Your task to perform on an android device: set the stopwatch Image 0: 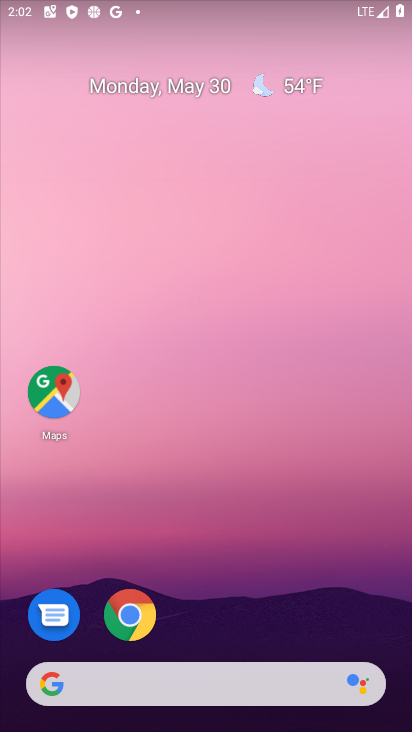
Step 0: drag from (311, 590) to (281, 169)
Your task to perform on an android device: set the stopwatch Image 1: 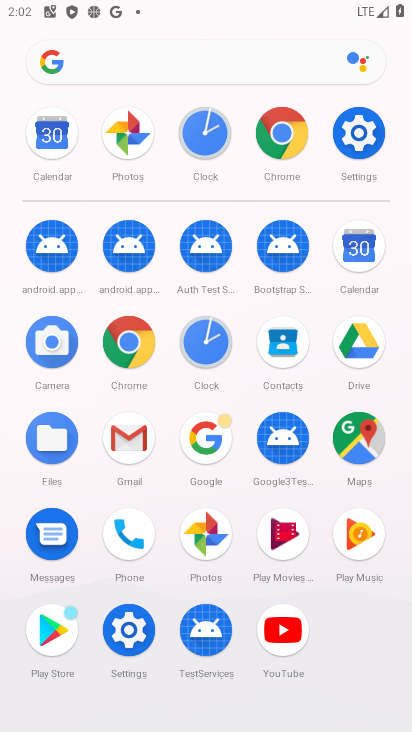
Step 1: click (210, 330)
Your task to perform on an android device: set the stopwatch Image 2: 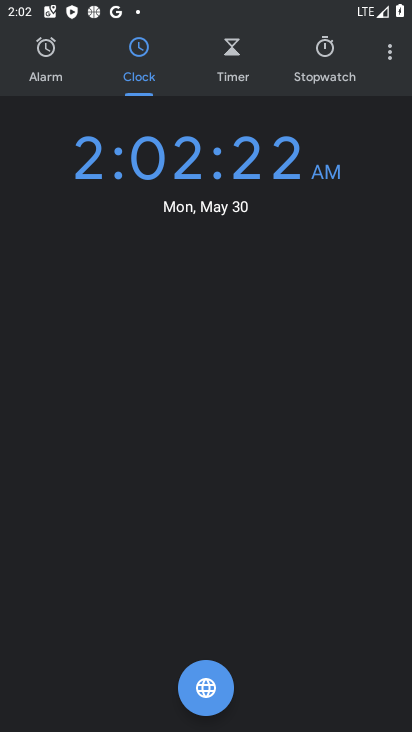
Step 2: click (329, 62)
Your task to perform on an android device: set the stopwatch Image 3: 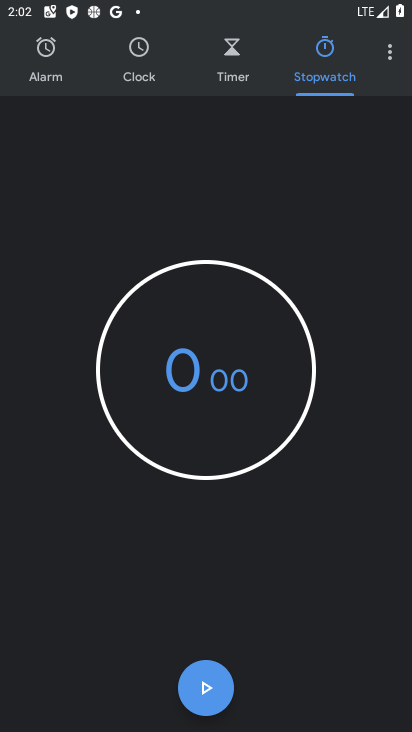
Step 3: task complete